Your task to perform on an android device: Go to Wikipedia Image 0: 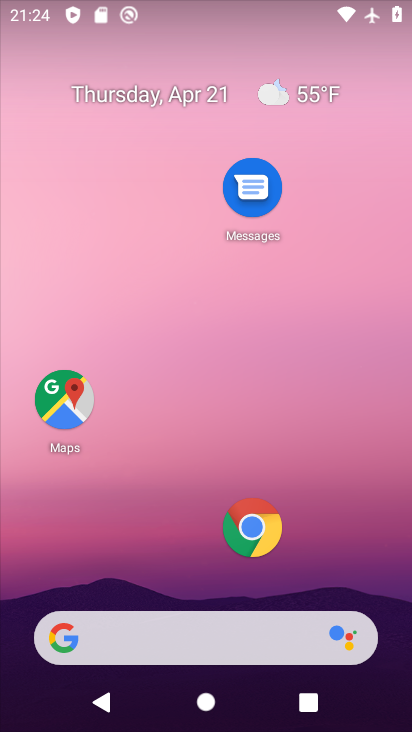
Step 0: drag from (199, 532) to (364, 56)
Your task to perform on an android device: Go to Wikipedia Image 1: 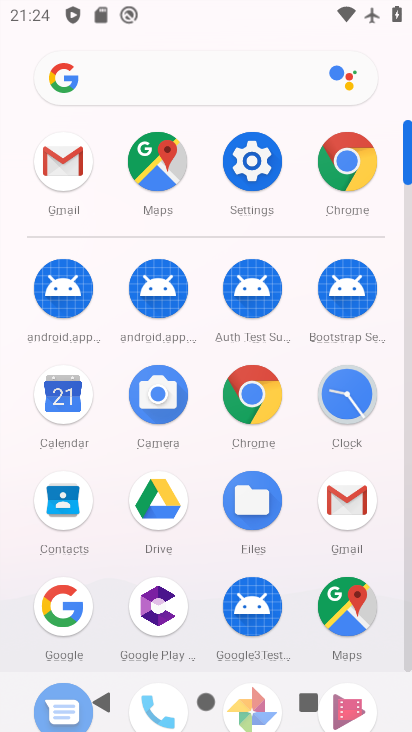
Step 1: click (352, 169)
Your task to perform on an android device: Go to Wikipedia Image 2: 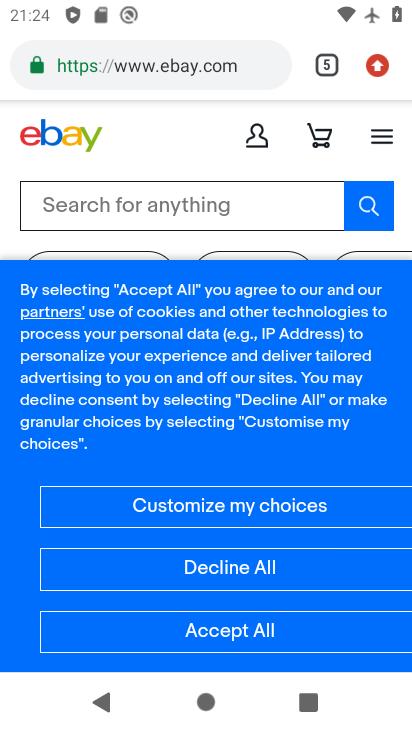
Step 2: click (372, 77)
Your task to perform on an android device: Go to Wikipedia Image 3: 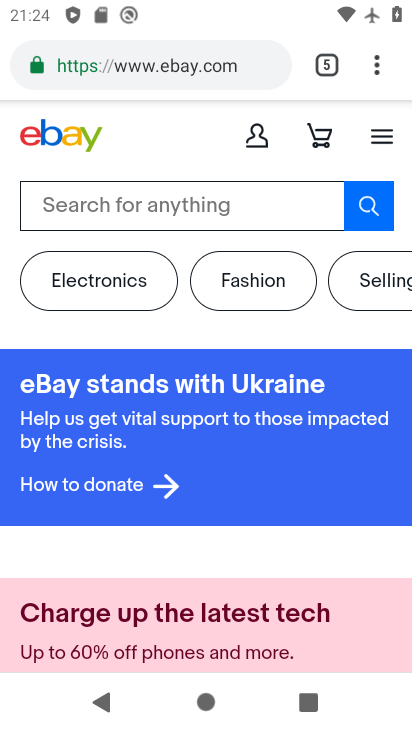
Step 3: click (367, 77)
Your task to perform on an android device: Go to Wikipedia Image 4: 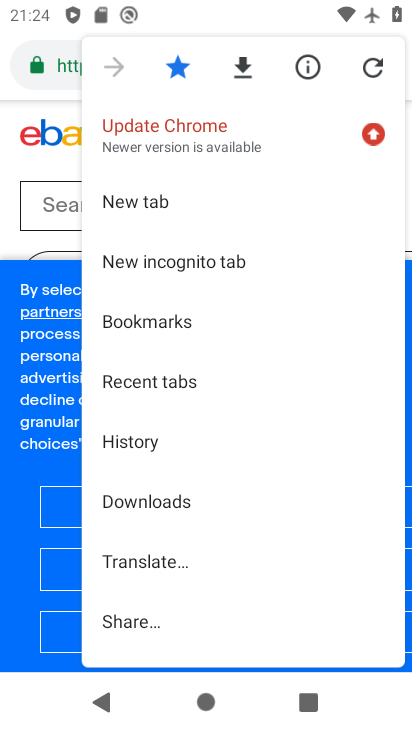
Step 4: click (115, 199)
Your task to perform on an android device: Go to Wikipedia Image 5: 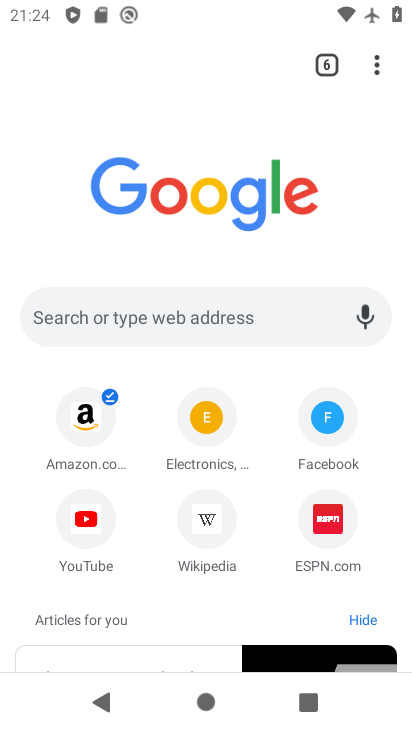
Step 5: click (201, 525)
Your task to perform on an android device: Go to Wikipedia Image 6: 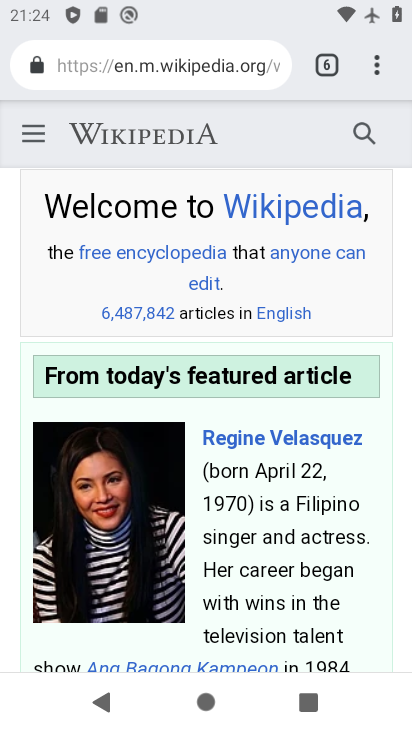
Step 6: task complete